Your task to perform on an android device: turn off translation in the chrome app Image 0: 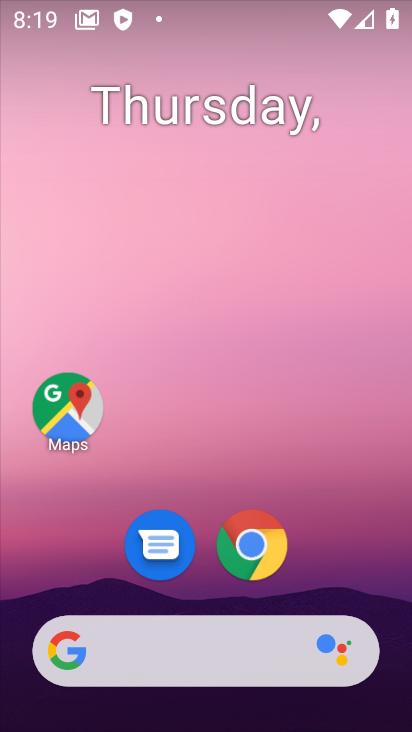
Step 0: click (248, 544)
Your task to perform on an android device: turn off translation in the chrome app Image 1: 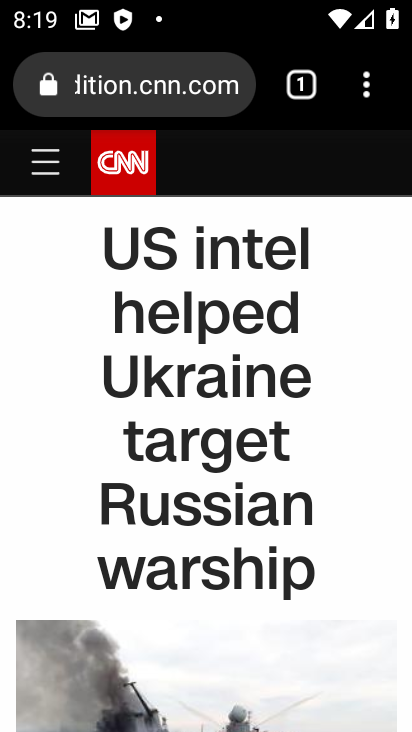
Step 1: click (377, 82)
Your task to perform on an android device: turn off translation in the chrome app Image 2: 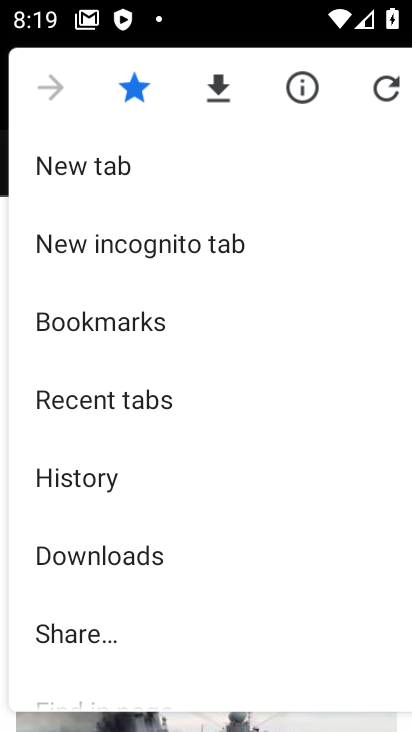
Step 2: drag from (102, 580) to (183, 105)
Your task to perform on an android device: turn off translation in the chrome app Image 3: 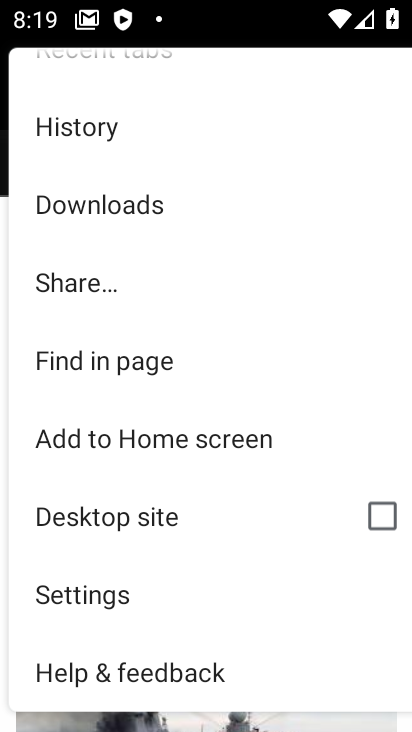
Step 3: click (123, 604)
Your task to perform on an android device: turn off translation in the chrome app Image 4: 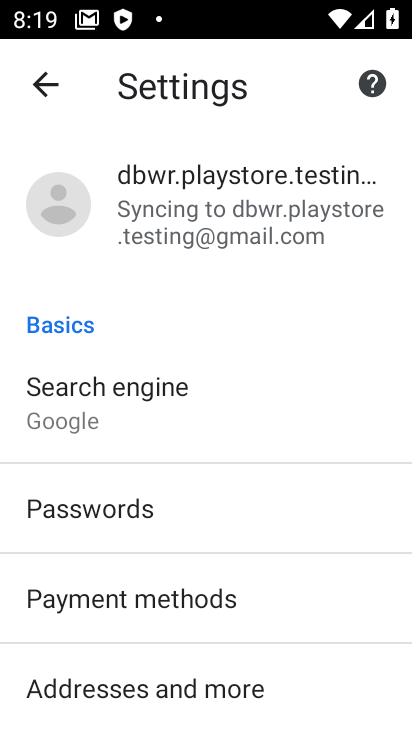
Step 4: drag from (145, 618) to (230, 62)
Your task to perform on an android device: turn off translation in the chrome app Image 5: 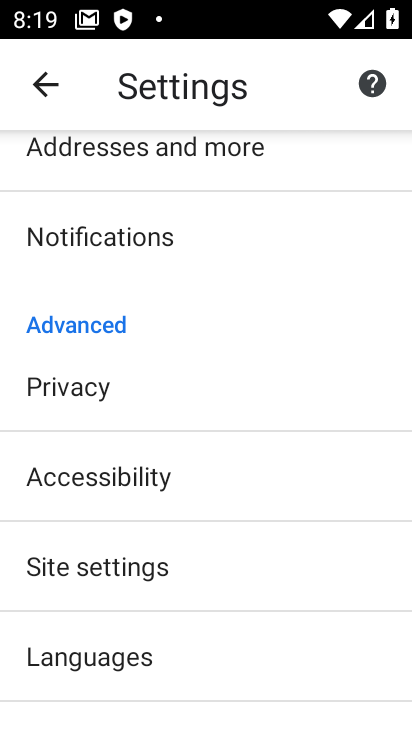
Step 5: click (55, 652)
Your task to perform on an android device: turn off translation in the chrome app Image 6: 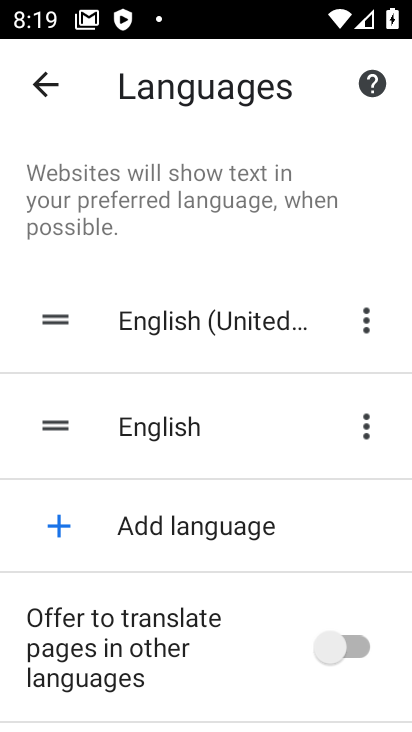
Step 6: task complete